Your task to perform on an android device: Open my contact list Image 0: 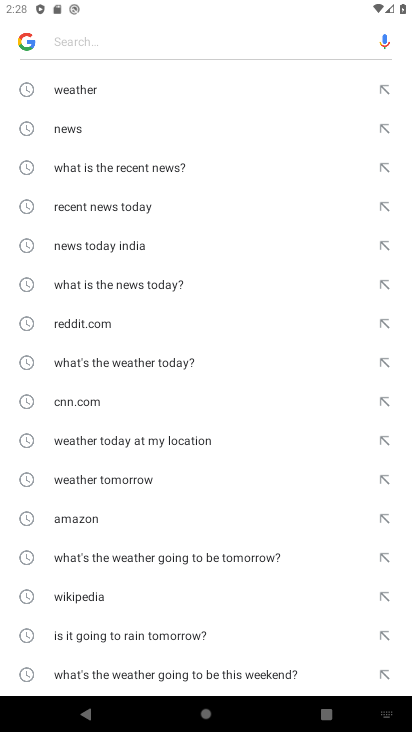
Step 0: press home button
Your task to perform on an android device: Open my contact list Image 1: 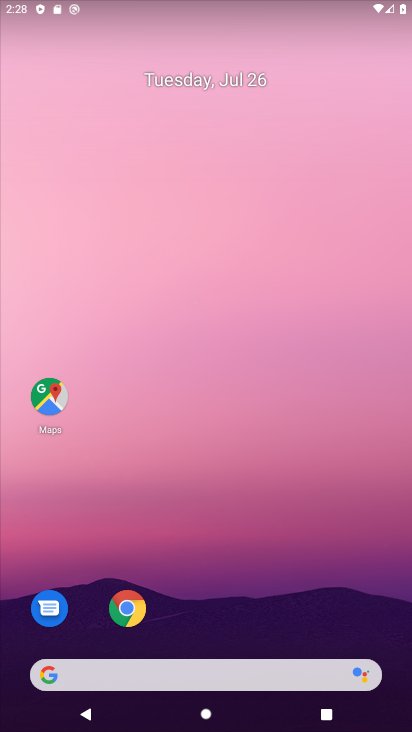
Step 1: drag from (285, 535) to (292, 120)
Your task to perform on an android device: Open my contact list Image 2: 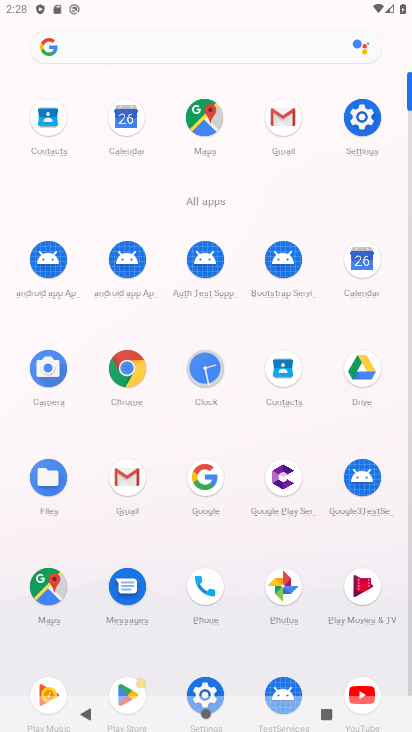
Step 2: click (282, 368)
Your task to perform on an android device: Open my contact list Image 3: 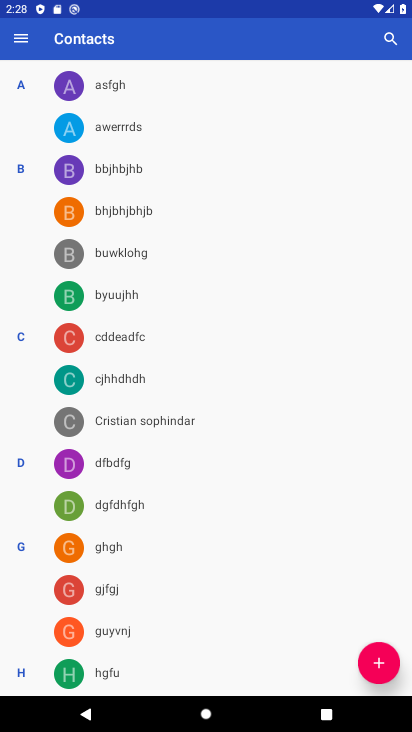
Step 3: task complete